Your task to perform on an android device: search for starred emails in the gmail app Image 0: 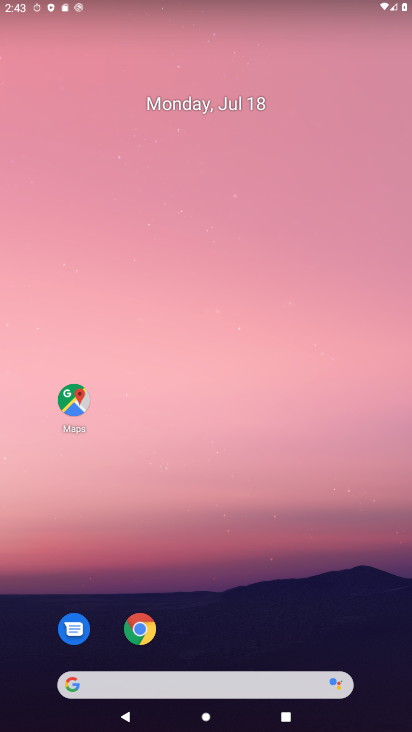
Step 0: drag from (209, 668) to (249, 225)
Your task to perform on an android device: search for starred emails in the gmail app Image 1: 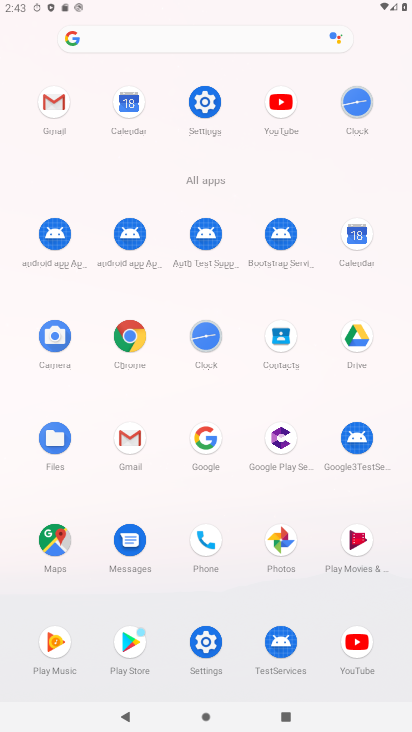
Step 1: click (132, 437)
Your task to perform on an android device: search for starred emails in the gmail app Image 2: 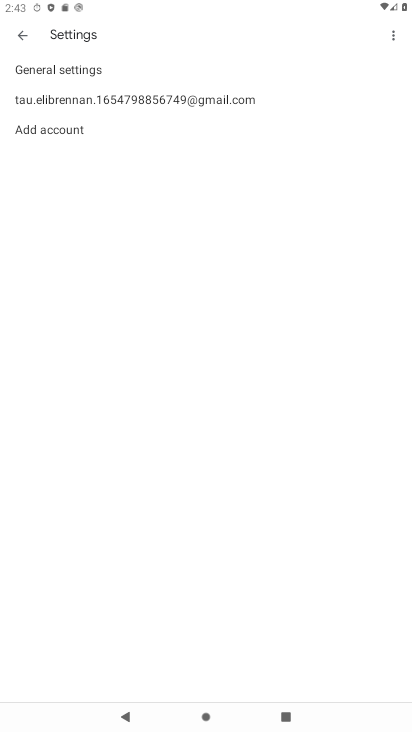
Step 2: click (16, 43)
Your task to perform on an android device: search for starred emails in the gmail app Image 3: 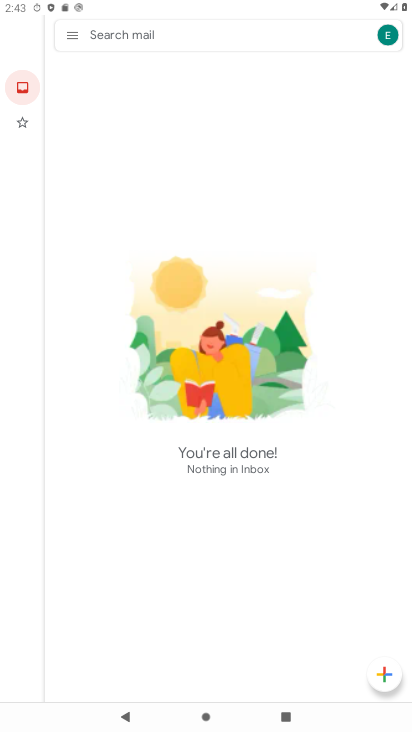
Step 3: click (77, 30)
Your task to perform on an android device: search for starred emails in the gmail app Image 4: 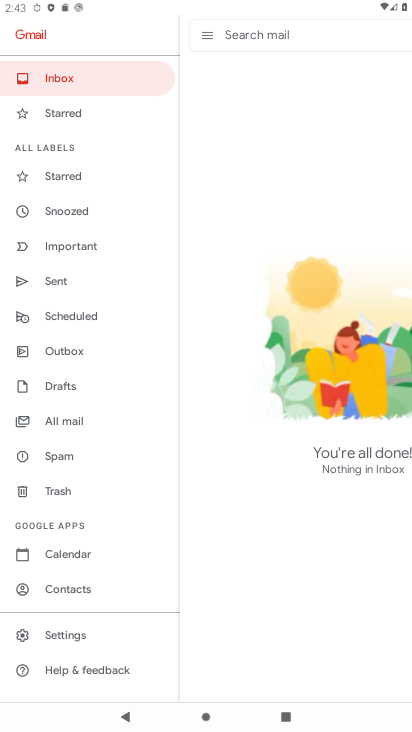
Step 4: click (77, 116)
Your task to perform on an android device: search for starred emails in the gmail app Image 5: 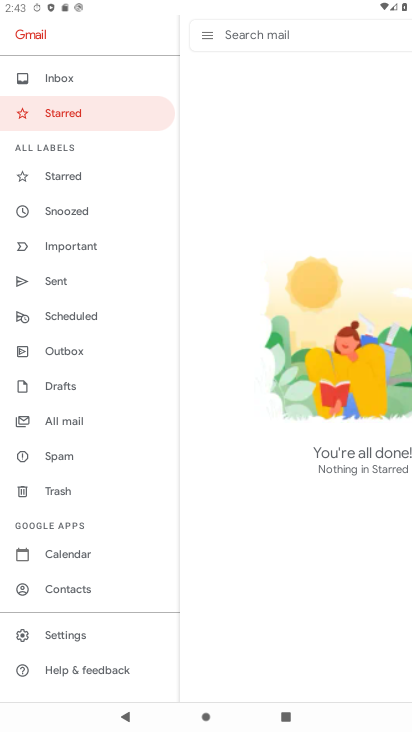
Step 5: task complete